Your task to perform on an android device: delete the emails in spam in the gmail app Image 0: 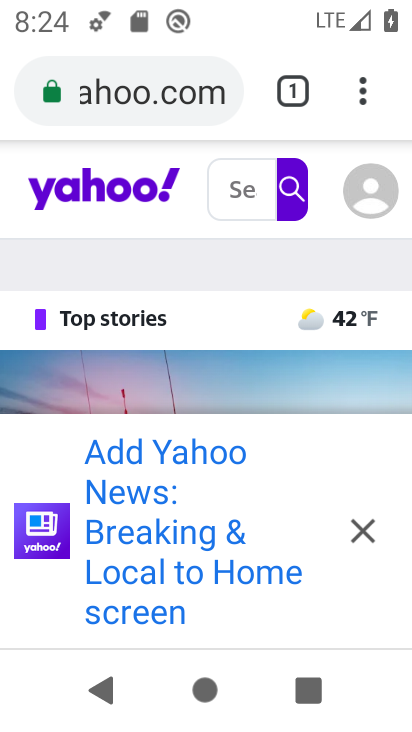
Step 0: press home button
Your task to perform on an android device: delete the emails in spam in the gmail app Image 1: 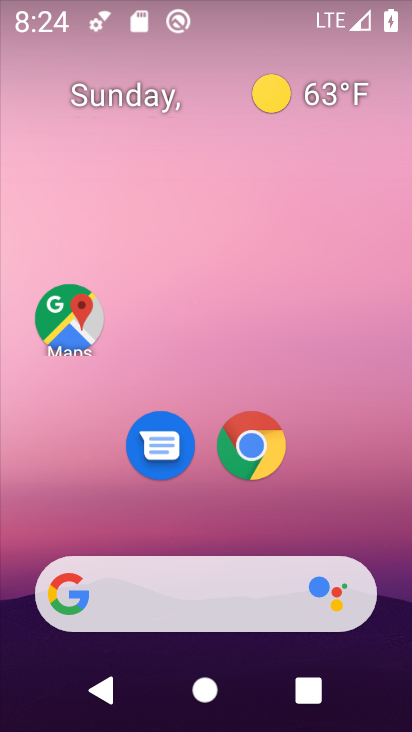
Step 1: drag from (198, 495) to (232, 0)
Your task to perform on an android device: delete the emails in spam in the gmail app Image 2: 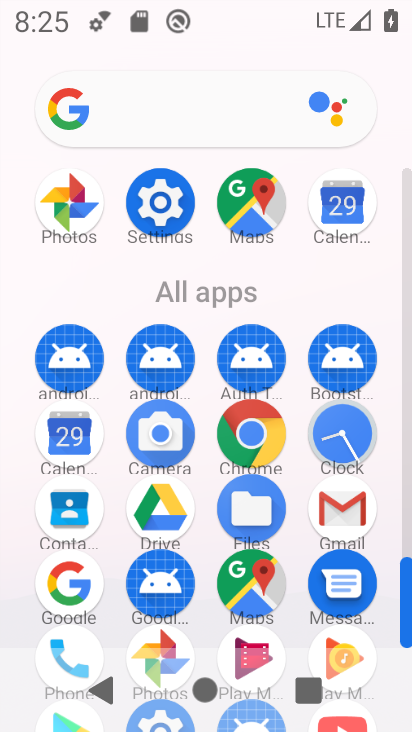
Step 2: click (336, 515)
Your task to perform on an android device: delete the emails in spam in the gmail app Image 3: 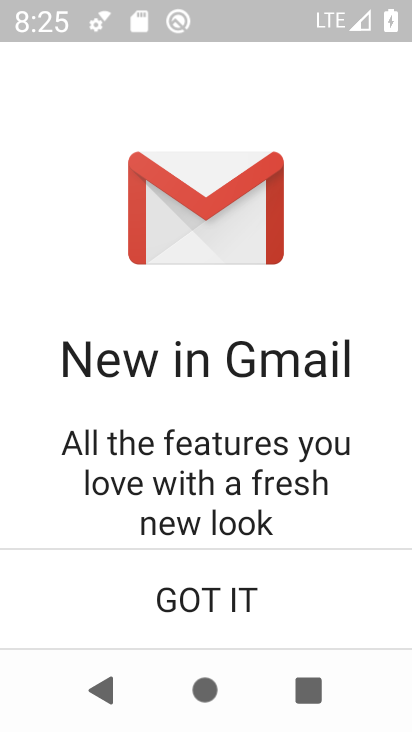
Step 3: click (253, 591)
Your task to perform on an android device: delete the emails in spam in the gmail app Image 4: 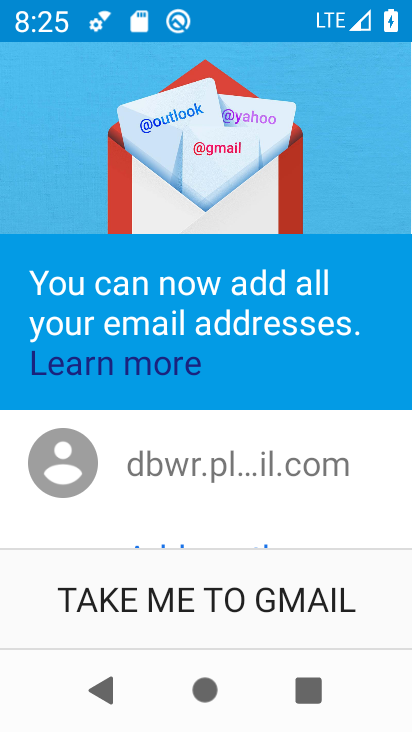
Step 4: click (208, 609)
Your task to perform on an android device: delete the emails in spam in the gmail app Image 5: 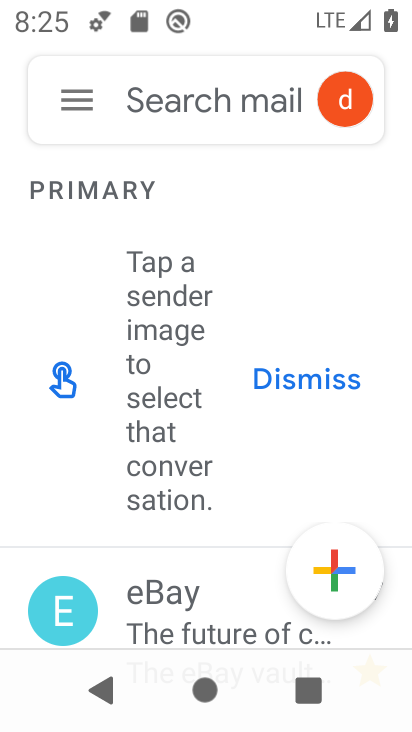
Step 5: click (62, 94)
Your task to perform on an android device: delete the emails in spam in the gmail app Image 6: 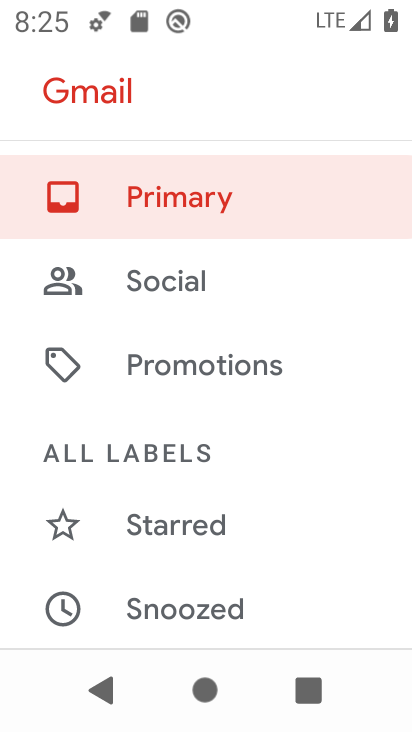
Step 6: drag from (149, 601) to (207, 137)
Your task to perform on an android device: delete the emails in spam in the gmail app Image 7: 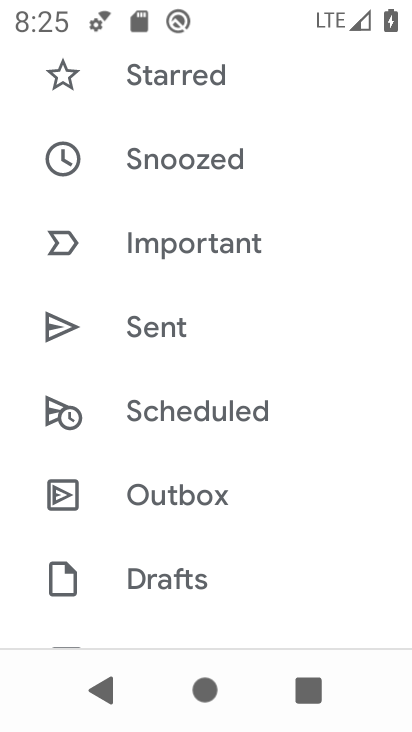
Step 7: drag from (169, 480) to (182, 109)
Your task to perform on an android device: delete the emails in spam in the gmail app Image 8: 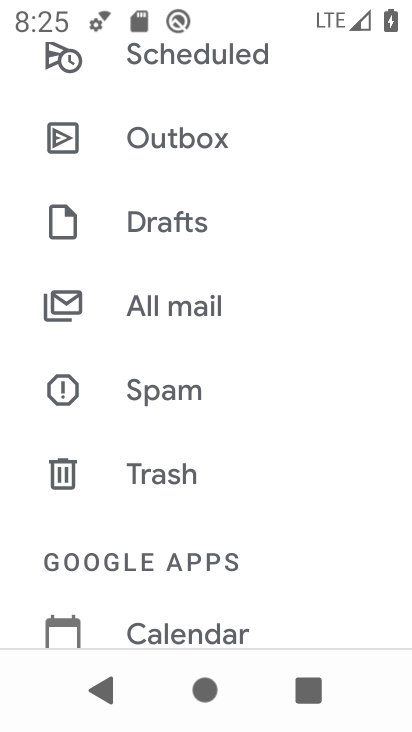
Step 8: click (199, 381)
Your task to perform on an android device: delete the emails in spam in the gmail app Image 9: 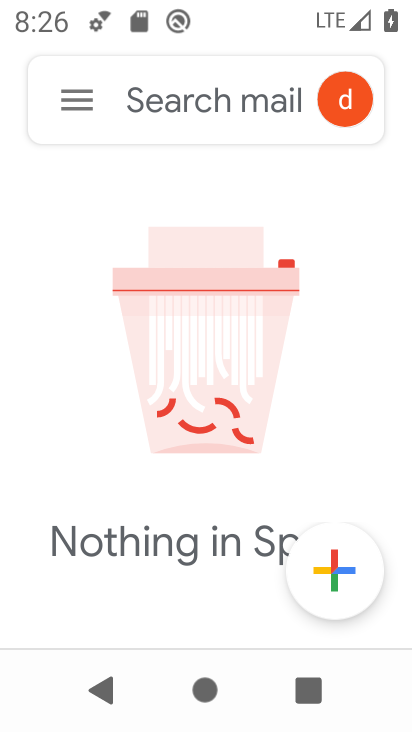
Step 9: task complete